Your task to perform on an android device: visit the assistant section in the google photos Image 0: 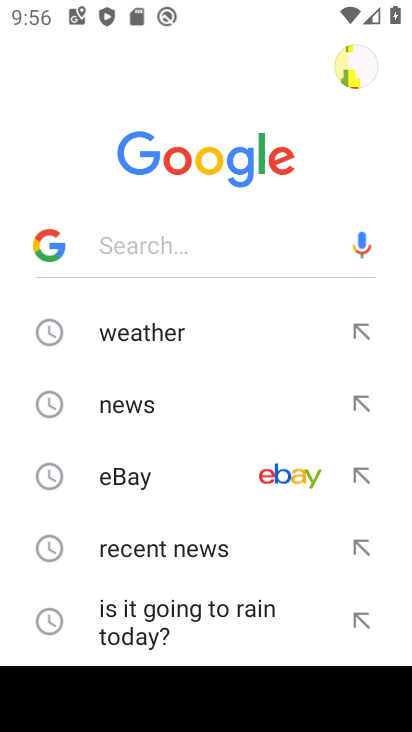
Step 0: press home button
Your task to perform on an android device: visit the assistant section in the google photos Image 1: 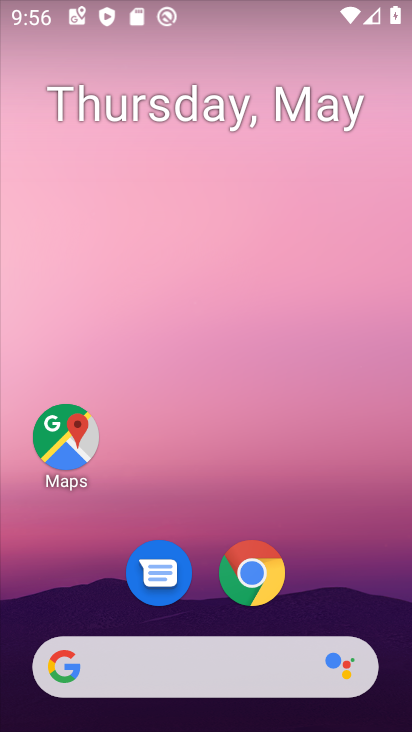
Step 1: drag from (204, 600) to (228, 230)
Your task to perform on an android device: visit the assistant section in the google photos Image 2: 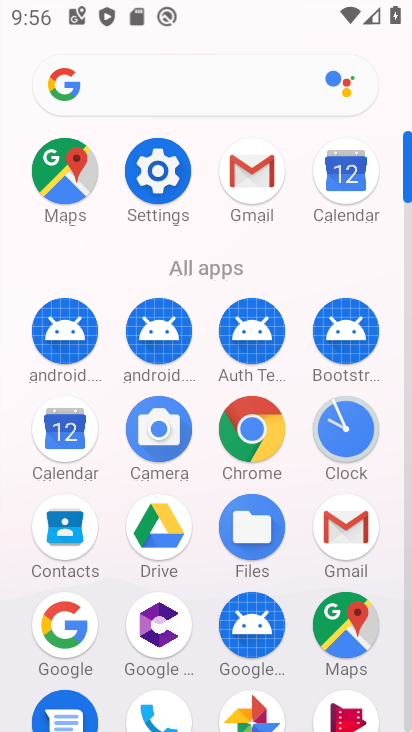
Step 2: drag from (302, 496) to (303, 231)
Your task to perform on an android device: visit the assistant section in the google photos Image 3: 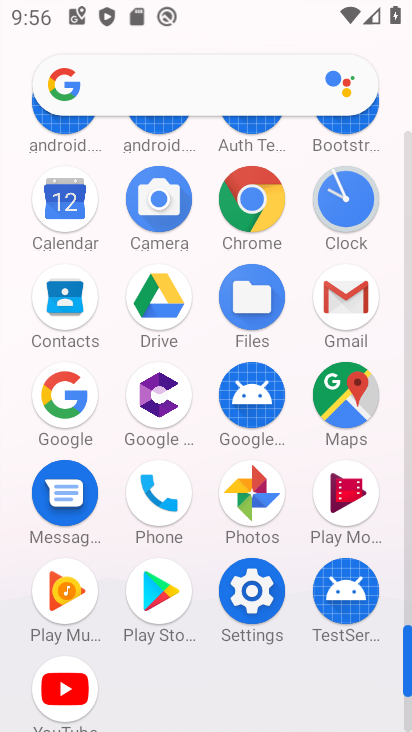
Step 3: click (246, 509)
Your task to perform on an android device: visit the assistant section in the google photos Image 4: 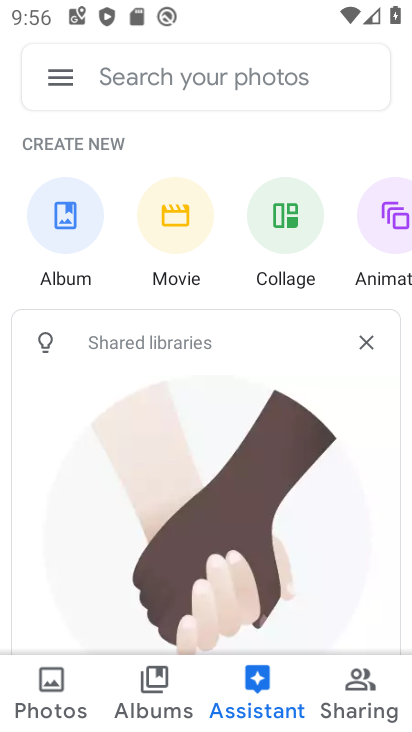
Step 4: task complete